Your task to perform on an android device: all mails in gmail Image 0: 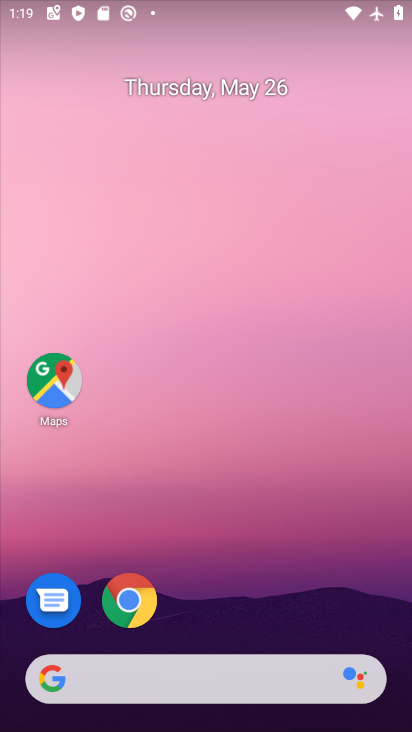
Step 0: drag from (285, 536) to (229, 23)
Your task to perform on an android device: all mails in gmail Image 1: 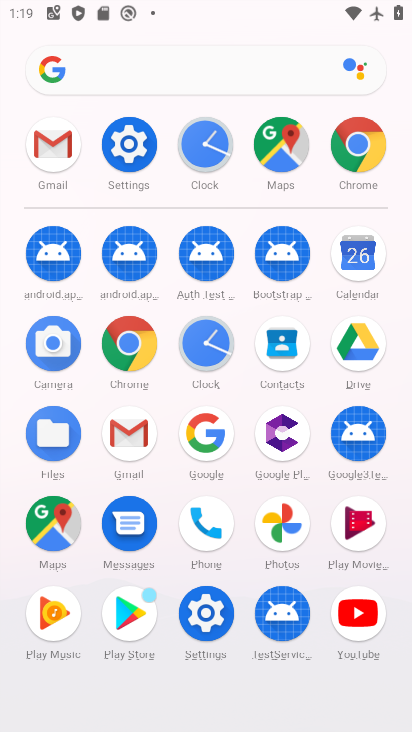
Step 1: click (62, 138)
Your task to perform on an android device: all mails in gmail Image 2: 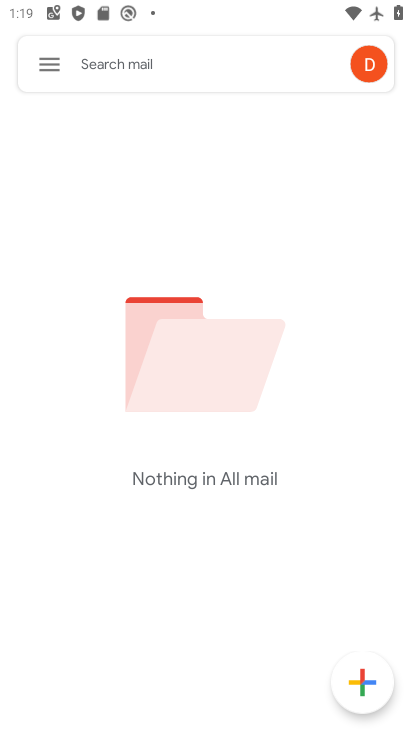
Step 2: task complete